Your task to perform on an android device: Empty the shopping cart on ebay.com. Image 0: 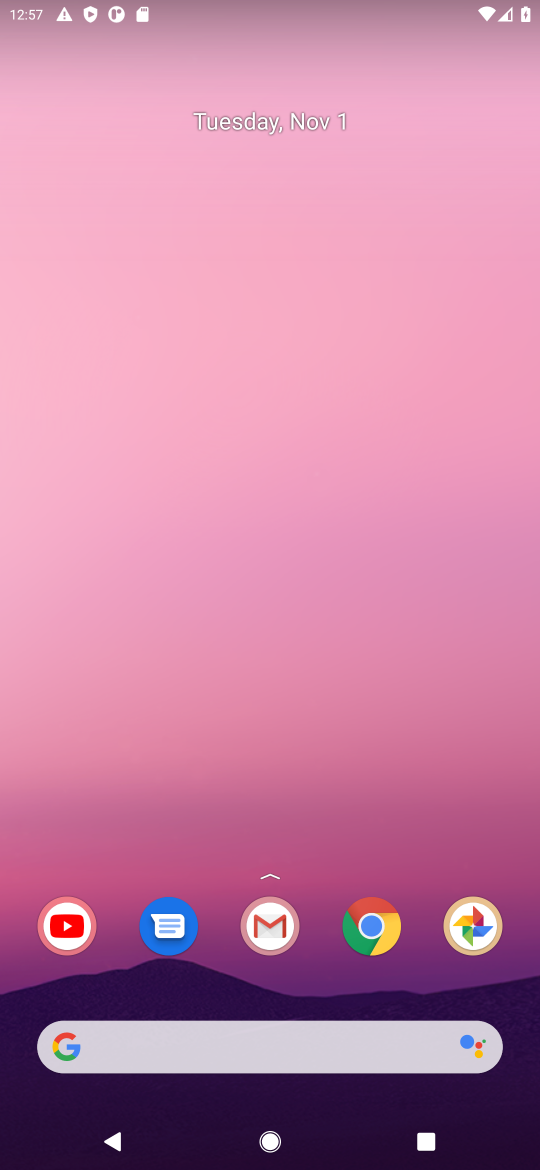
Step 0: click (385, 928)
Your task to perform on an android device: Empty the shopping cart on ebay.com. Image 1: 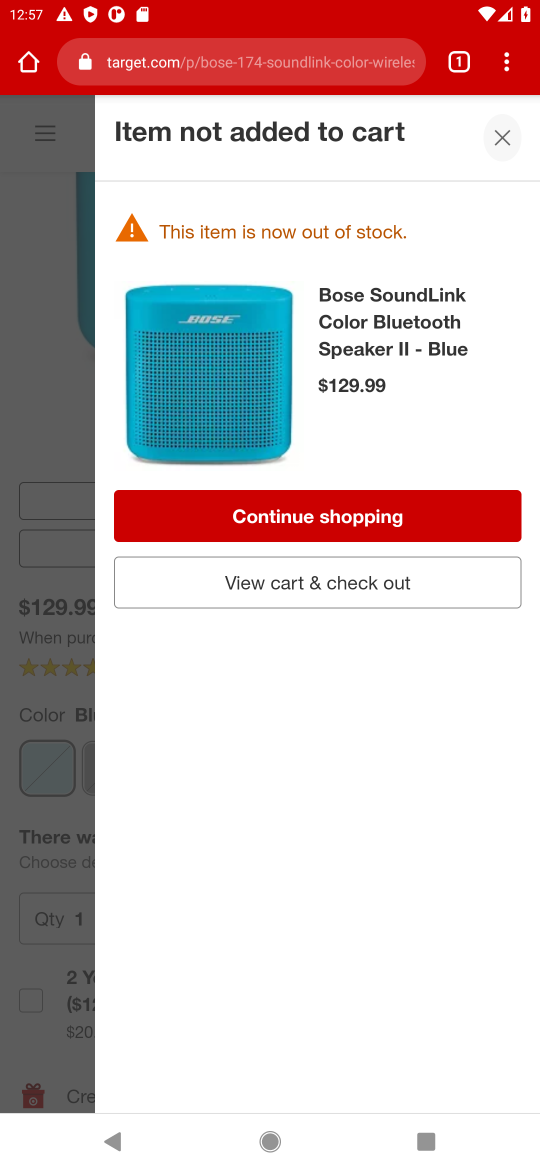
Step 1: click (214, 69)
Your task to perform on an android device: Empty the shopping cart on ebay.com. Image 2: 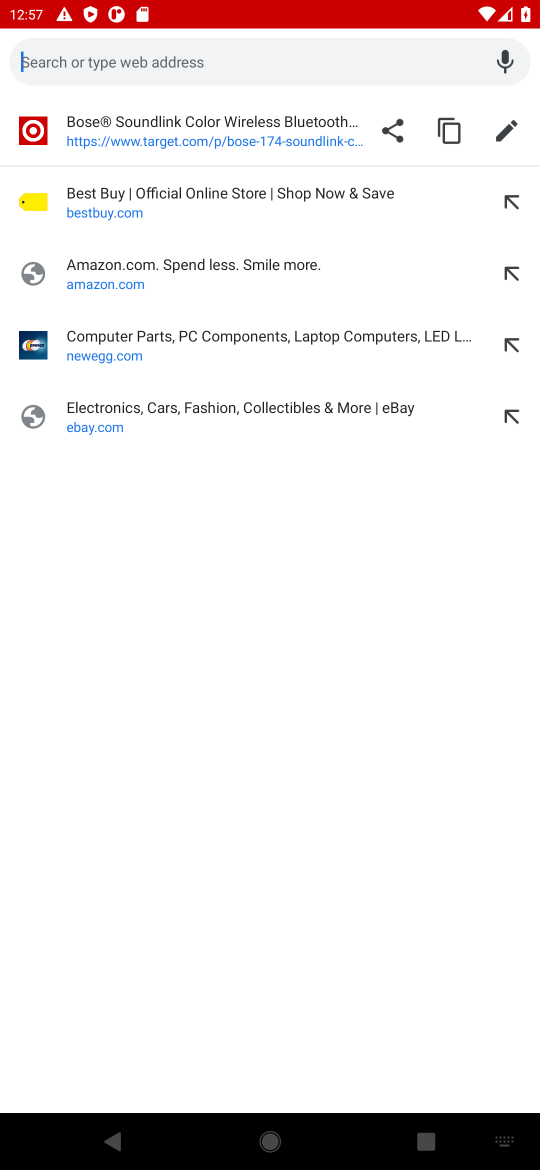
Step 2: type "ebay"
Your task to perform on an android device: Empty the shopping cart on ebay.com. Image 3: 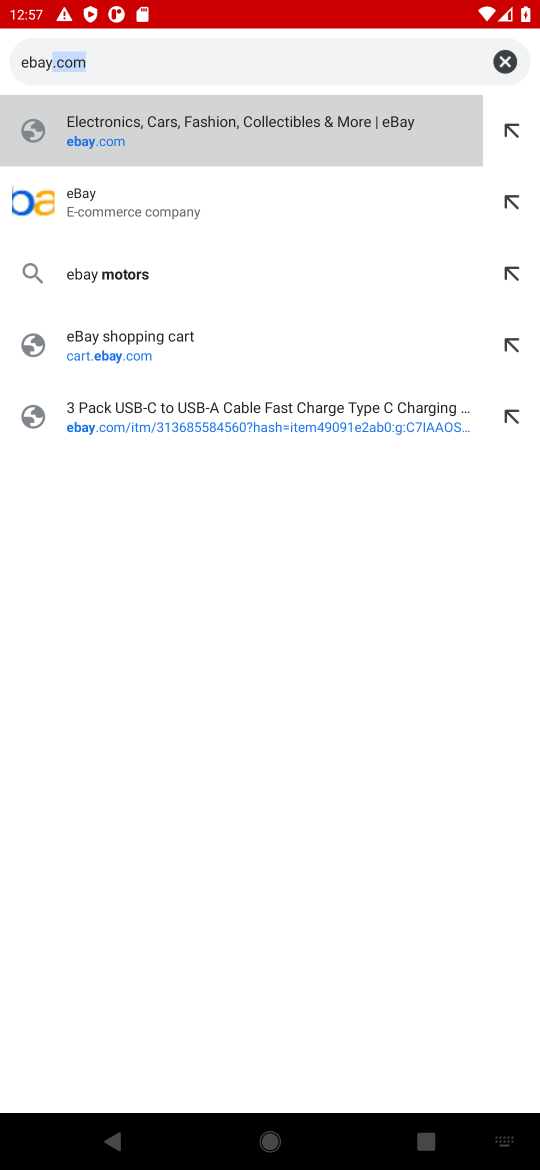
Step 3: press enter
Your task to perform on an android device: Empty the shopping cart on ebay.com. Image 4: 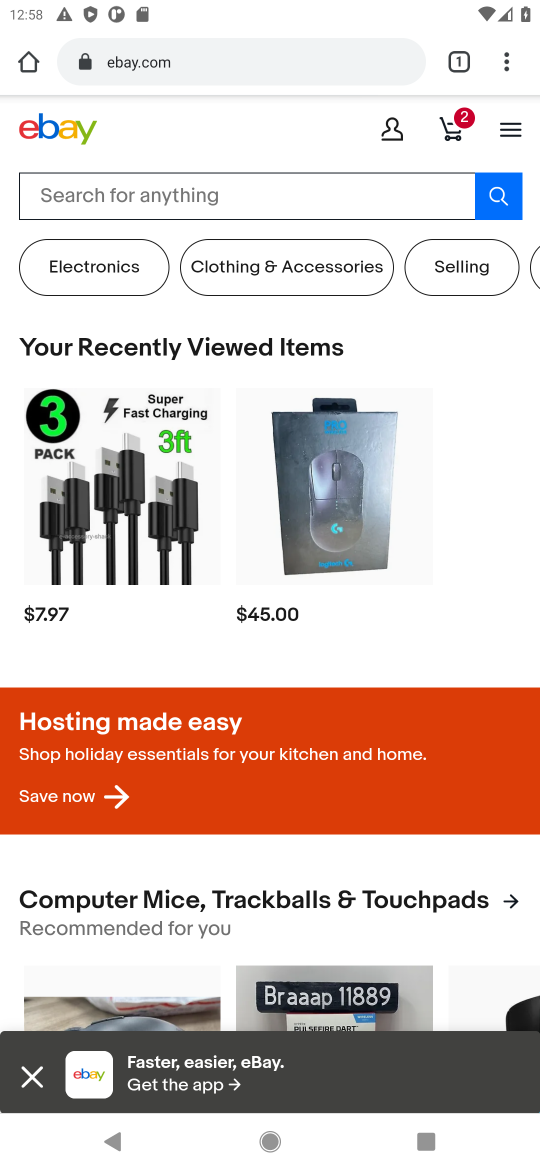
Step 4: drag from (321, 667) to (207, 665)
Your task to perform on an android device: Empty the shopping cart on ebay.com. Image 5: 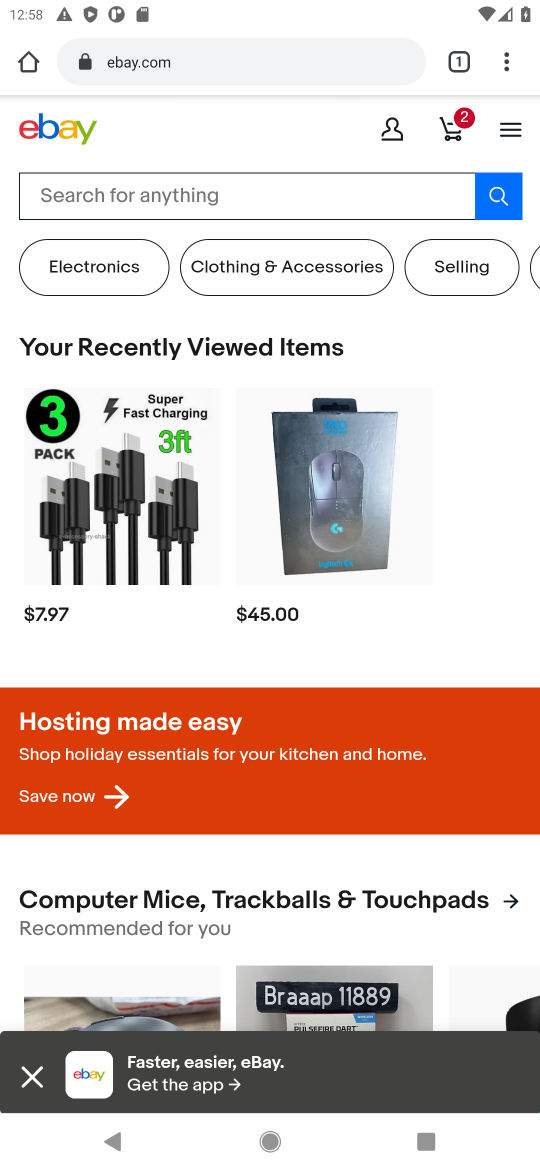
Step 5: click (460, 122)
Your task to perform on an android device: Empty the shopping cart on ebay.com. Image 6: 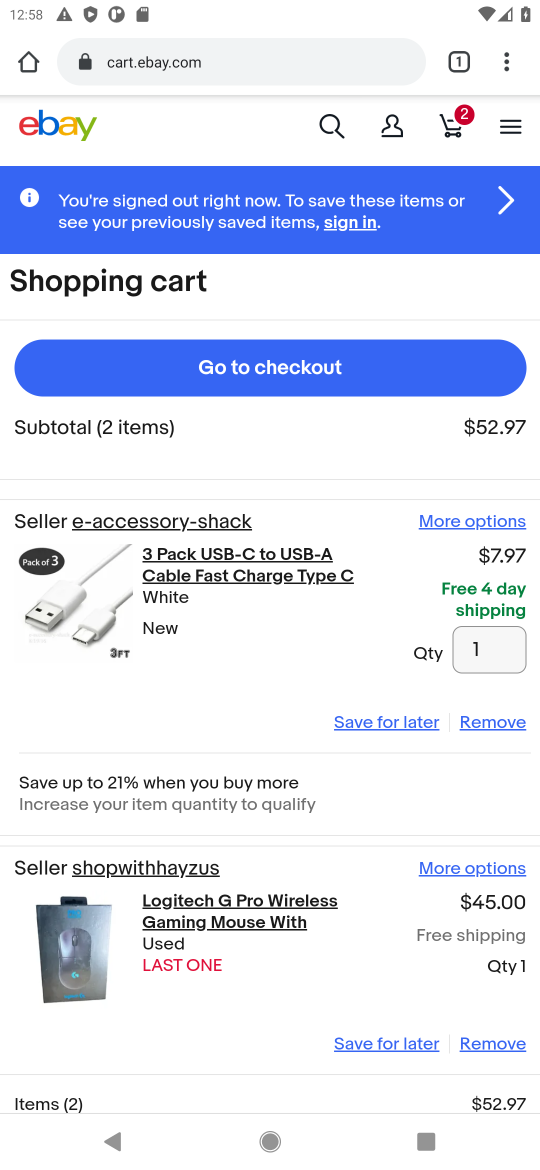
Step 6: click (498, 725)
Your task to perform on an android device: Empty the shopping cart on ebay.com. Image 7: 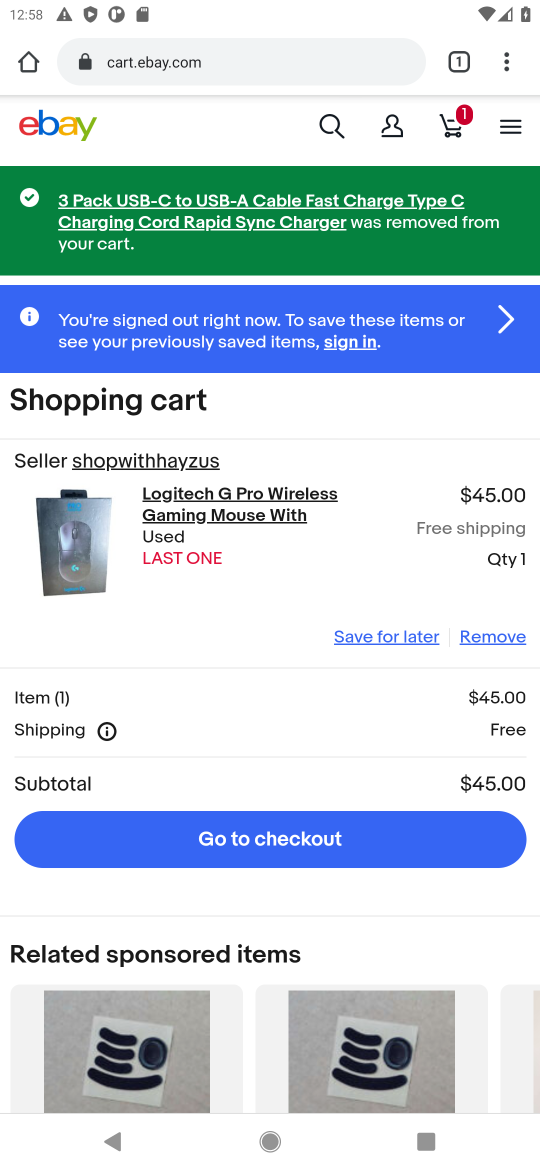
Step 7: click (503, 636)
Your task to perform on an android device: Empty the shopping cart on ebay.com. Image 8: 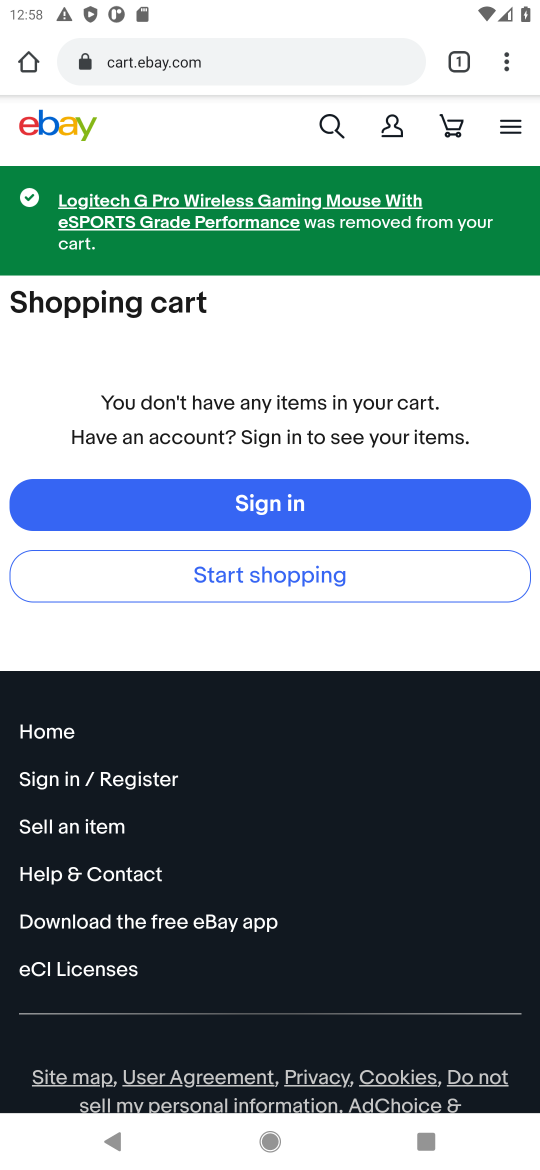
Step 8: task complete